Your task to perform on an android device: Open Google Maps and go to "Timeline" Image 0: 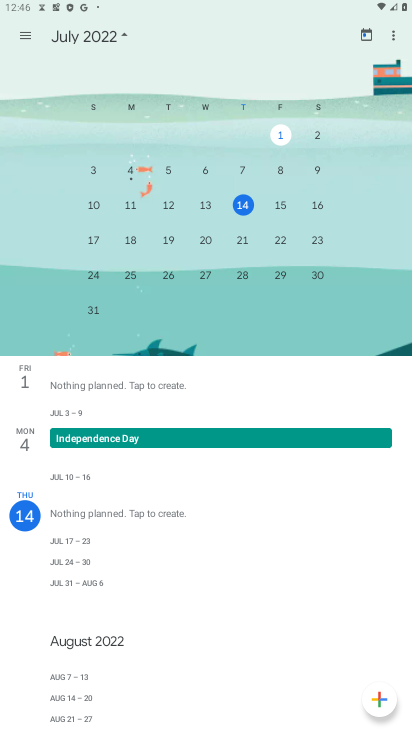
Step 0: press home button
Your task to perform on an android device: Open Google Maps and go to "Timeline" Image 1: 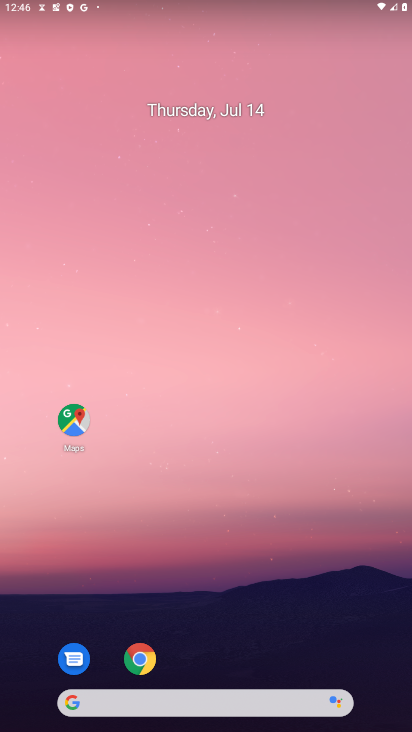
Step 1: drag from (66, 637) to (278, 229)
Your task to perform on an android device: Open Google Maps and go to "Timeline" Image 2: 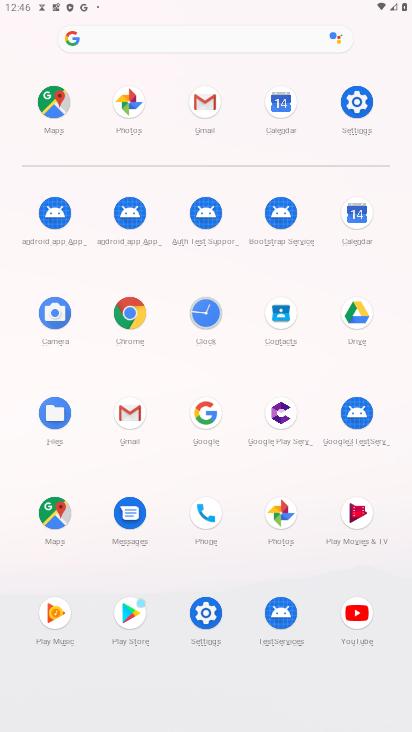
Step 2: click (45, 110)
Your task to perform on an android device: Open Google Maps and go to "Timeline" Image 3: 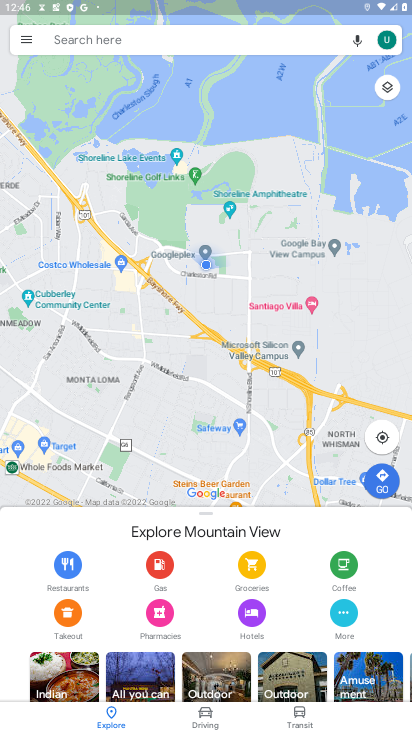
Step 3: click (22, 40)
Your task to perform on an android device: Open Google Maps and go to "Timeline" Image 4: 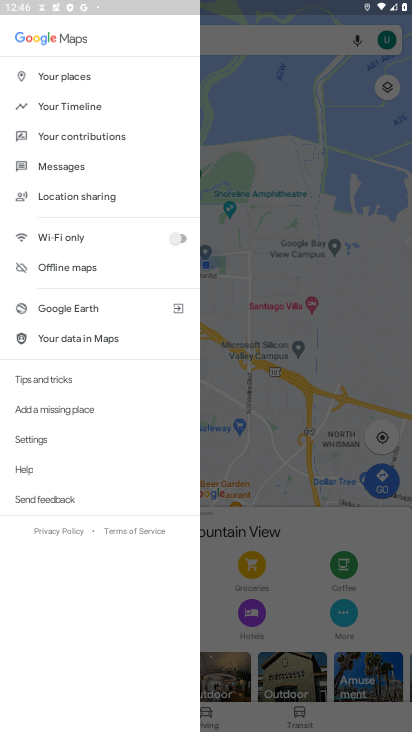
Step 4: click (66, 109)
Your task to perform on an android device: Open Google Maps and go to "Timeline" Image 5: 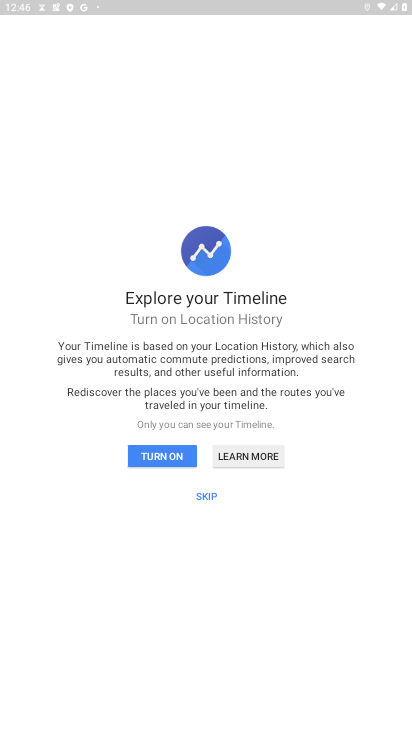
Step 5: click (213, 487)
Your task to perform on an android device: Open Google Maps and go to "Timeline" Image 6: 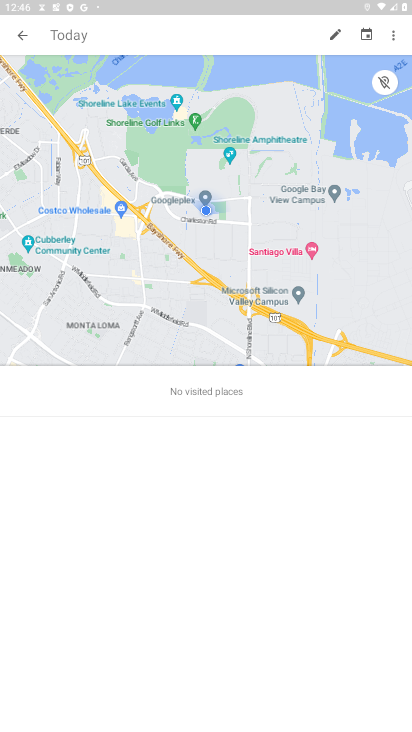
Step 6: task complete